Your task to perform on an android device: Search for "usb-a to usb-b" on amazon.com, select the first entry, and add it to the cart. Image 0: 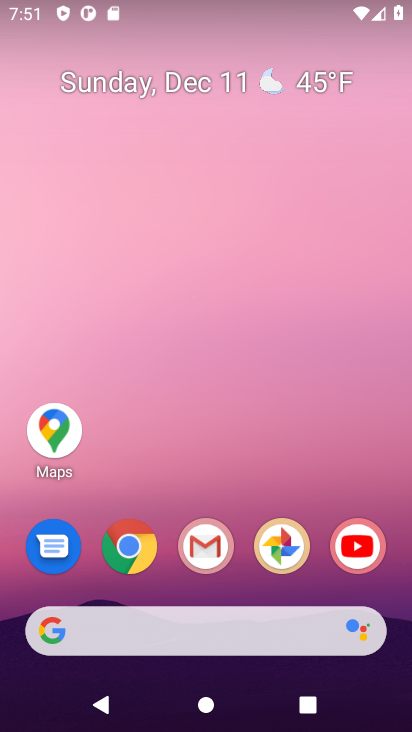
Step 0: click (134, 552)
Your task to perform on an android device: Search for "usb-a to usb-b" on amazon.com, select the first entry, and add it to the cart. Image 1: 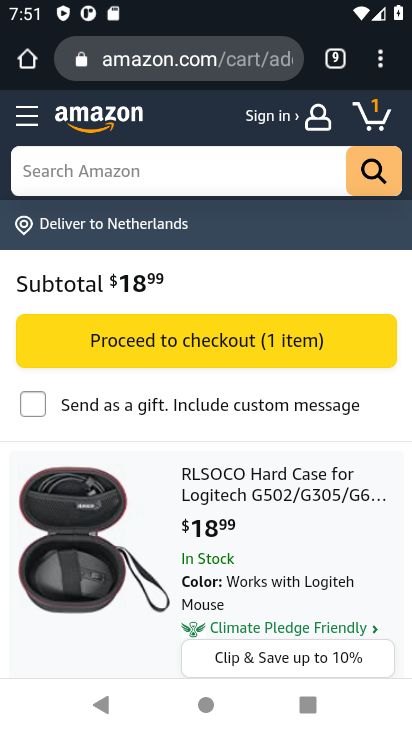
Step 1: click (71, 173)
Your task to perform on an android device: Search for "usb-a to usb-b" on amazon.com, select the first entry, and add it to the cart. Image 2: 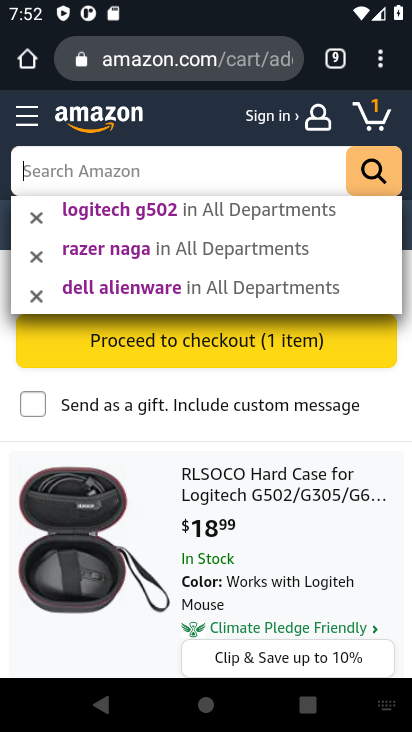
Step 2: type "usb-a to usb-b"
Your task to perform on an android device: Search for "usb-a to usb-b" on amazon.com, select the first entry, and add it to the cart. Image 3: 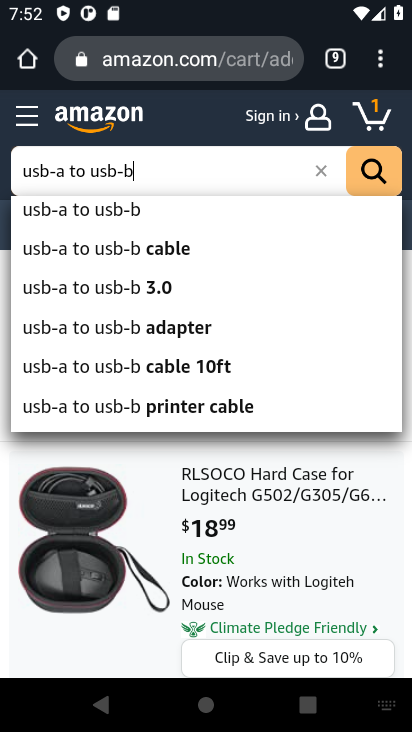
Step 3: click (90, 212)
Your task to perform on an android device: Search for "usb-a to usb-b" on amazon.com, select the first entry, and add it to the cart. Image 4: 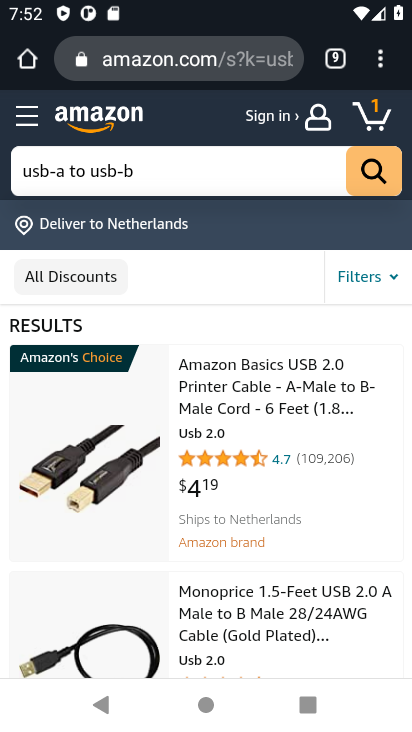
Step 4: click (216, 399)
Your task to perform on an android device: Search for "usb-a to usb-b" on amazon.com, select the first entry, and add it to the cart. Image 5: 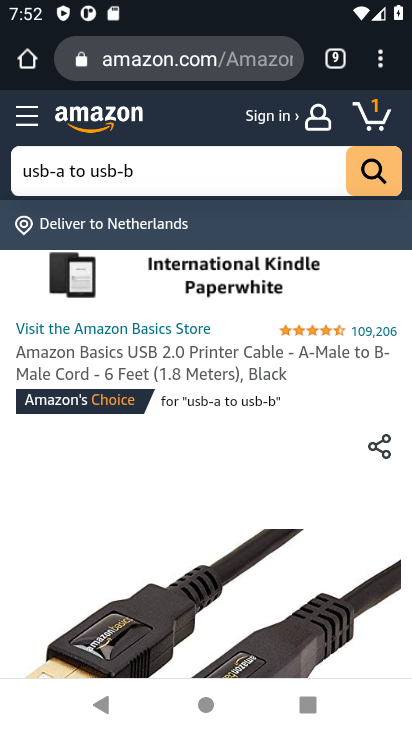
Step 5: drag from (222, 539) to (241, 241)
Your task to perform on an android device: Search for "usb-a to usb-b" on amazon.com, select the first entry, and add it to the cart. Image 6: 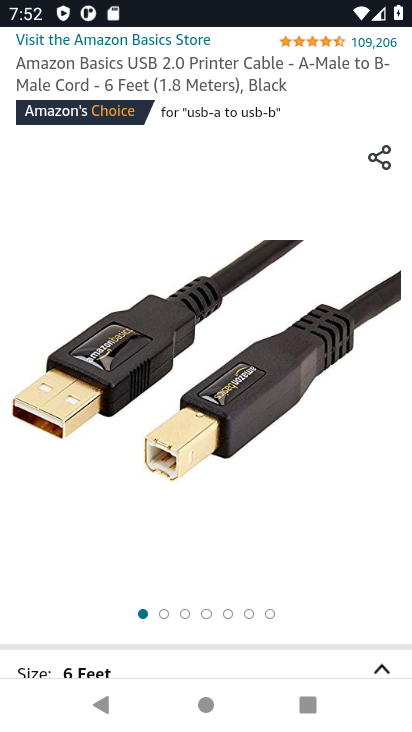
Step 6: drag from (256, 511) to (213, 160)
Your task to perform on an android device: Search for "usb-a to usb-b" on amazon.com, select the first entry, and add it to the cart. Image 7: 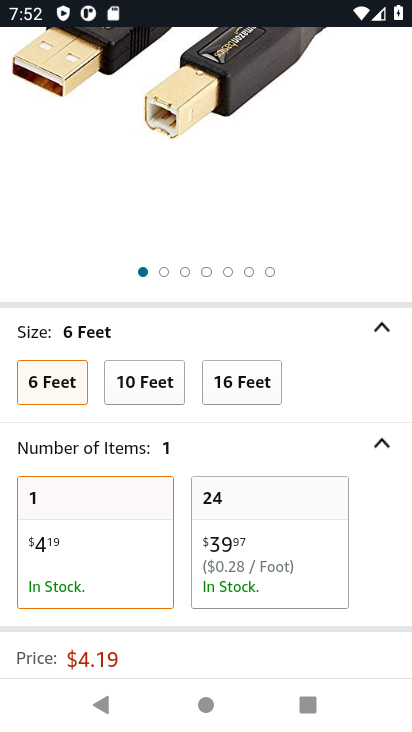
Step 7: drag from (270, 504) to (273, 180)
Your task to perform on an android device: Search for "usb-a to usb-b" on amazon.com, select the first entry, and add it to the cart. Image 8: 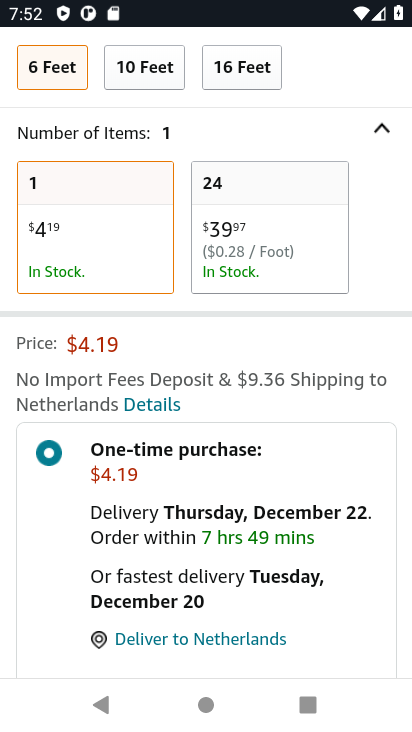
Step 8: drag from (242, 489) to (236, 150)
Your task to perform on an android device: Search for "usb-a to usb-b" on amazon.com, select the first entry, and add it to the cart. Image 9: 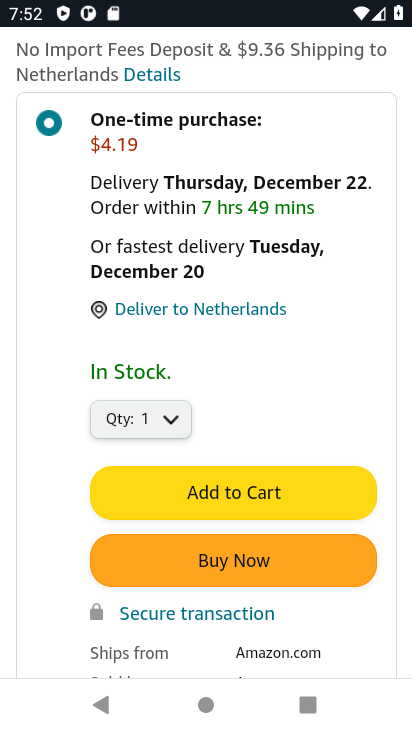
Step 9: click (273, 493)
Your task to perform on an android device: Search for "usb-a to usb-b" on amazon.com, select the first entry, and add it to the cart. Image 10: 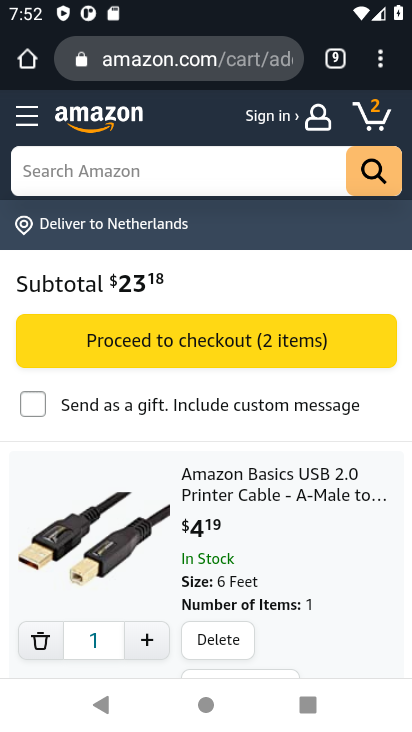
Step 10: task complete